Your task to perform on an android device: Open Google Chrome and click the shortcut for Amazon.com Image 0: 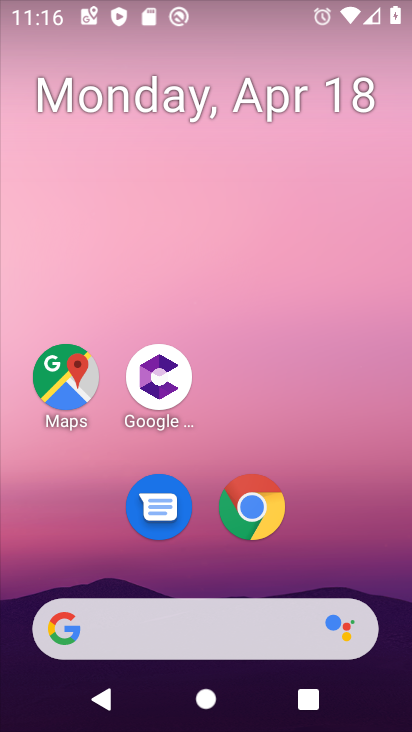
Step 0: click (248, 637)
Your task to perform on an android device: Open Google Chrome and click the shortcut for Amazon.com Image 1: 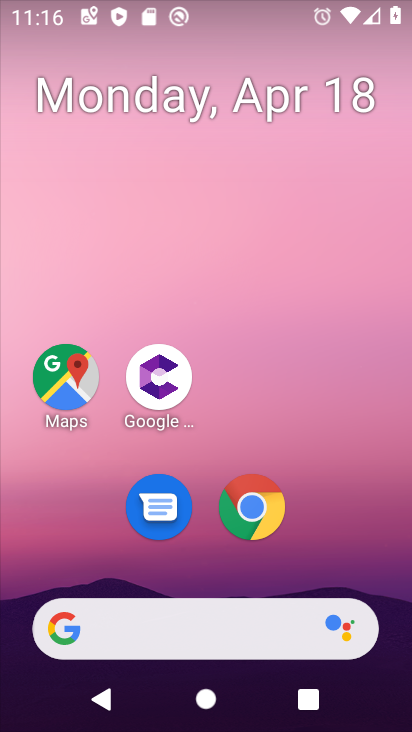
Step 1: drag from (237, 674) to (248, 130)
Your task to perform on an android device: Open Google Chrome and click the shortcut for Amazon.com Image 2: 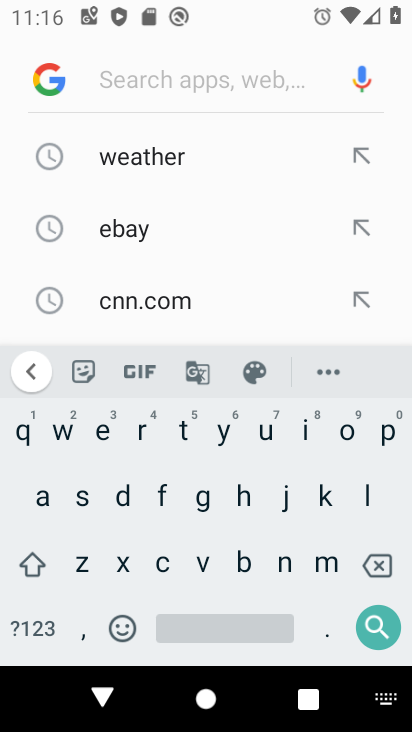
Step 2: press home button
Your task to perform on an android device: Open Google Chrome and click the shortcut for Amazon.com Image 3: 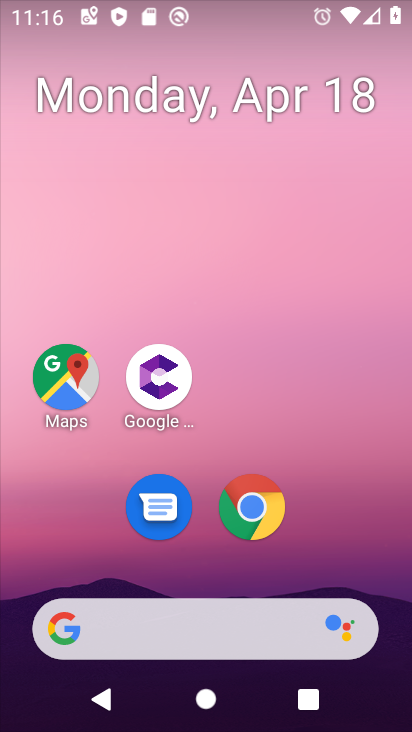
Step 3: drag from (271, 627) to (242, 223)
Your task to perform on an android device: Open Google Chrome and click the shortcut for Amazon.com Image 4: 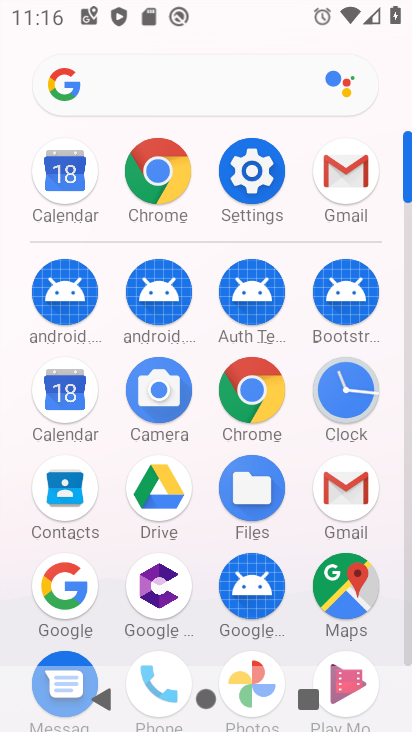
Step 4: click (184, 172)
Your task to perform on an android device: Open Google Chrome and click the shortcut for Amazon.com Image 5: 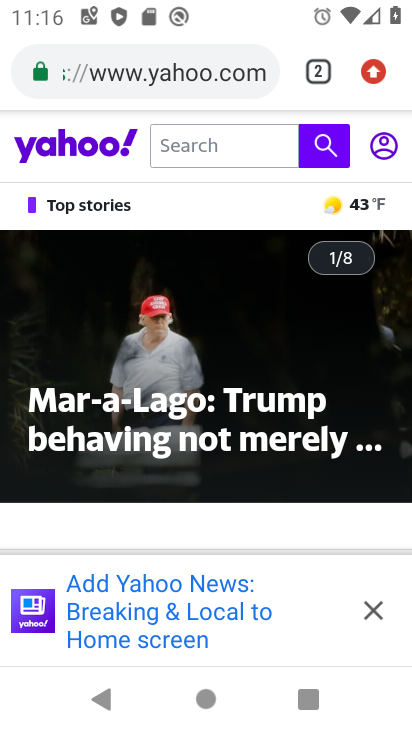
Step 5: click (221, 88)
Your task to perform on an android device: Open Google Chrome and click the shortcut for Amazon.com Image 6: 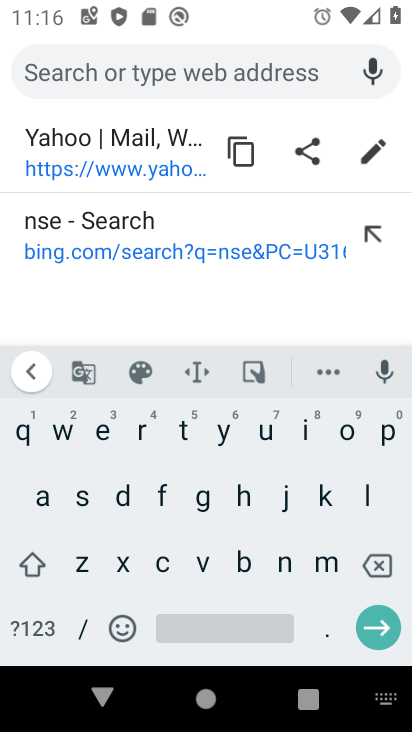
Step 6: click (36, 502)
Your task to perform on an android device: Open Google Chrome and click the shortcut for Amazon.com Image 7: 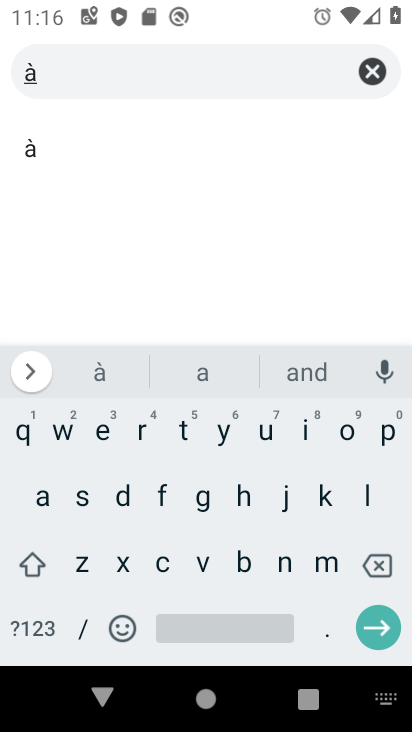
Step 7: click (383, 567)
Your task to perform on an android device: Open Google Chrome and click the shortcut for Amazon.com Image 8: 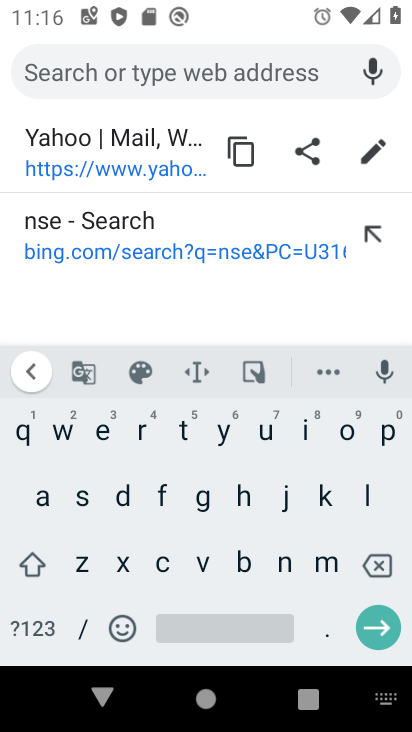
Step 8: click (43, 502)
Your task to perform on an android device: Open Google Chrome and click the shortcut for Amazon.com Image 9: 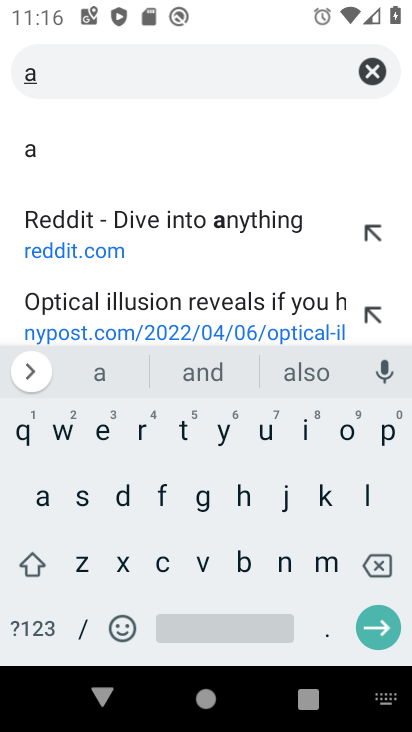
Step 9: click (323, 563)
Your task to perform on an android device: Open Google Chrome and click the shortcut for Amazon.com Image 10: 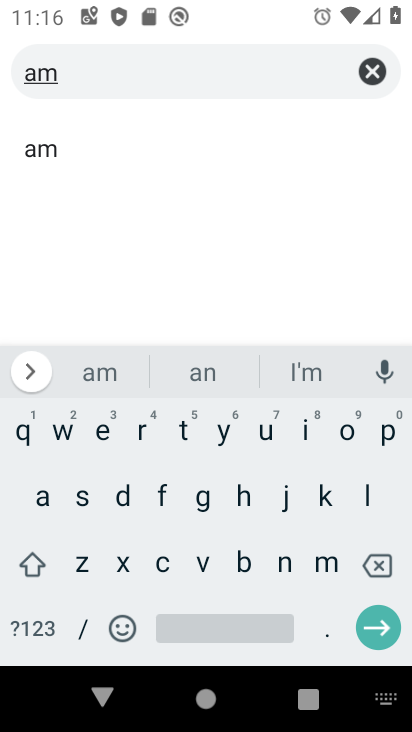
Step 10: click (38, 501)
Your task to perform on an android device: Open Google Chrome and click the shortcut for Amazon.com Image 11: 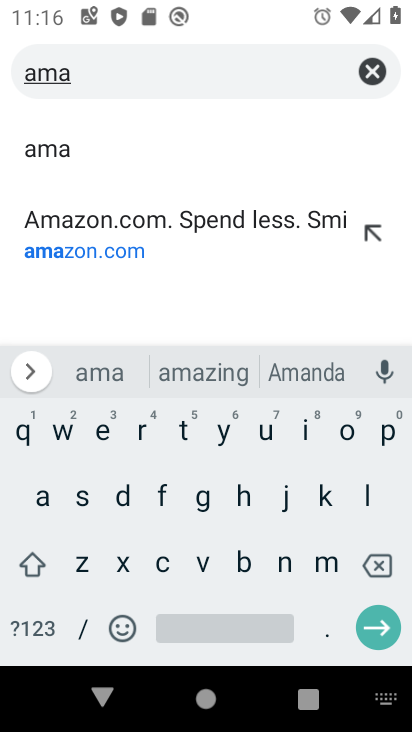
Step 11: click (157, 227)
Your task to perform on an android device: Open Google Chrome and click the shortcut for Amazon.com Image 12: 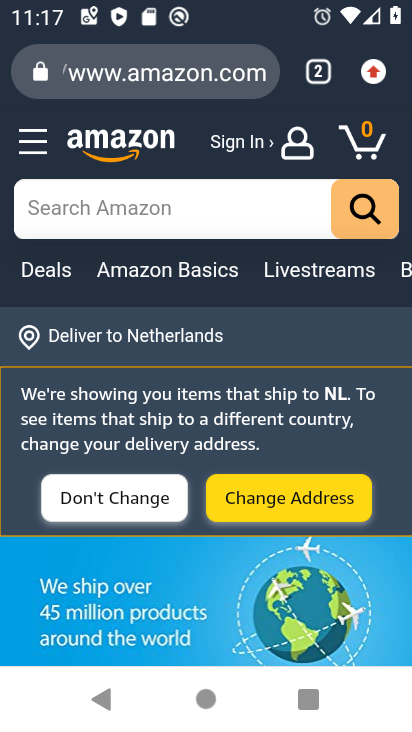
Step 12: task complete